Your task to perform on an android device: Open the web browser Image 0: 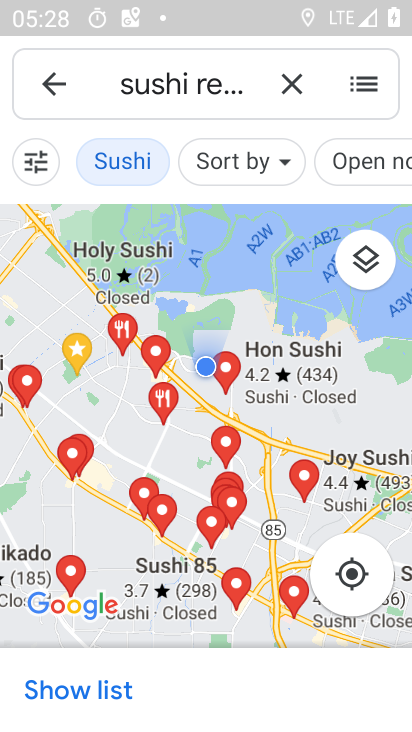
Step 0: press home button
Your task to perform on an android device: Open the web browser Image 1: 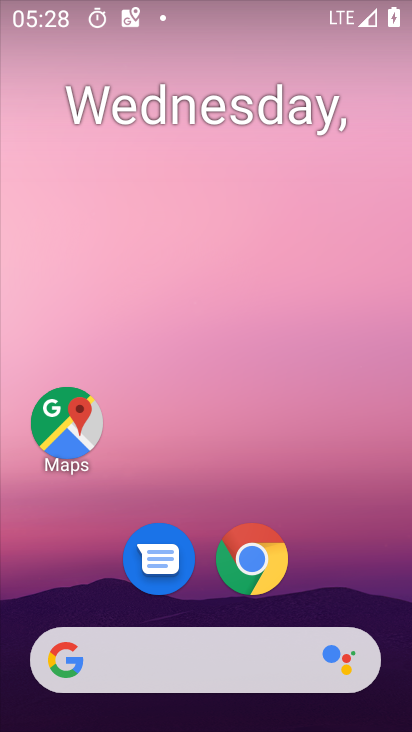
Step 1: click (254, 560)
Your task to perform on an android device: Open the web browser Image 2: 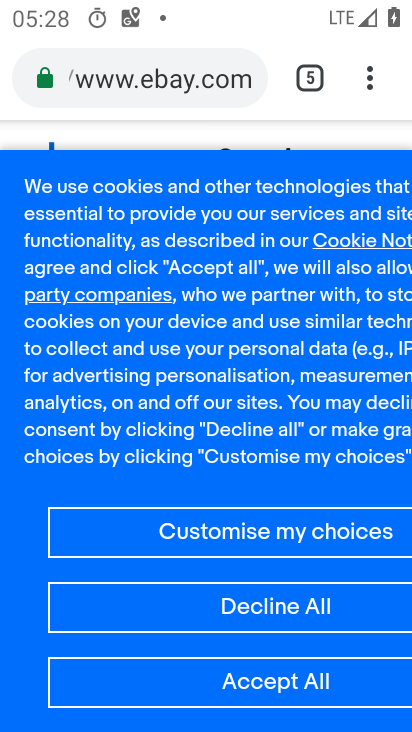
Step 2: task complete